Your task to perform on an android device: Open the stopwatch Image 0: 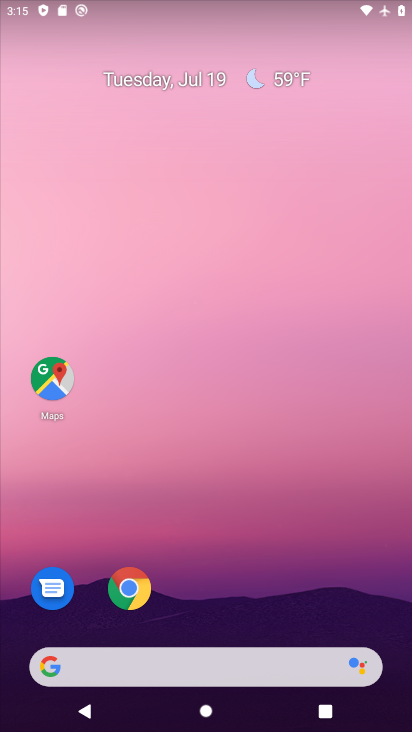
Step 0: press home button
Your task to perform on an android device: Open the stopwatch Image 1: 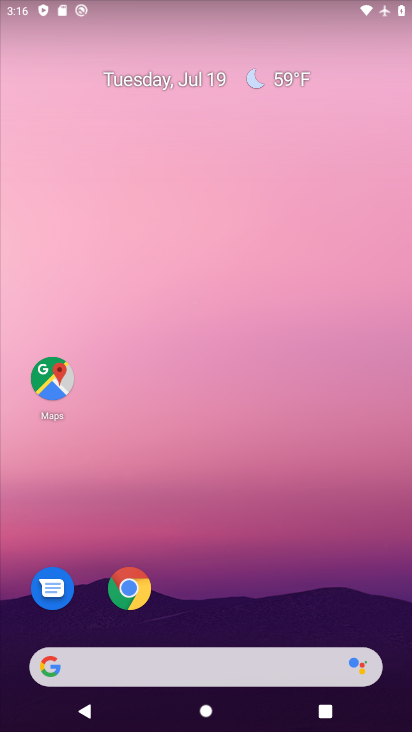
Step 1: drag from (223, 614) to (258, 32)
Your task to perform on an android device: Open the stopwatch Image 2: 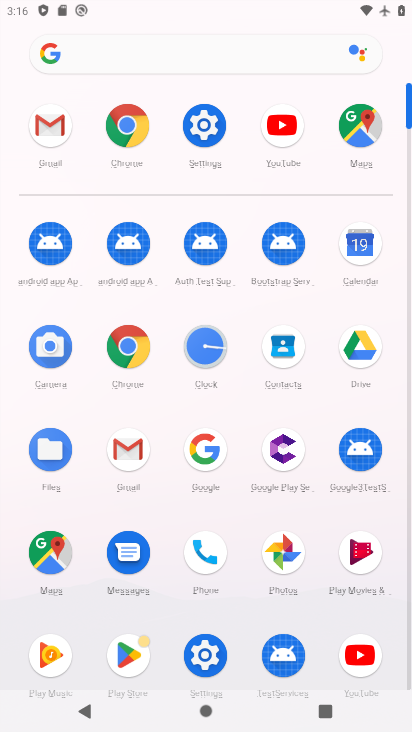
Step 2: click (199, 351)
Your task to perform on an android device: Open the stopwatch Image 3: 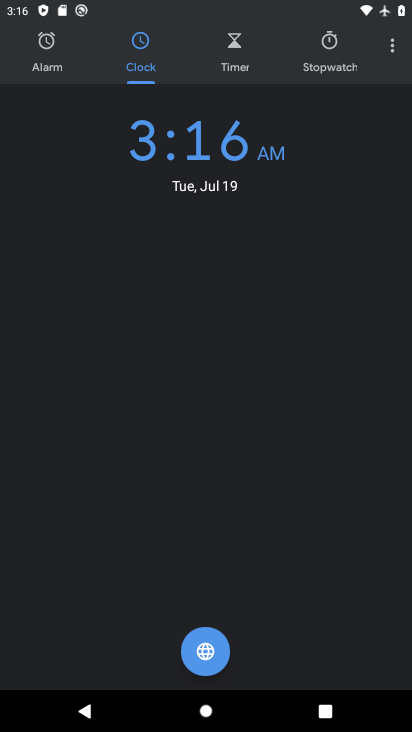
Step 3: click (335, 38)
Your task to perform on an android device: Open the stopwatch Image 4: 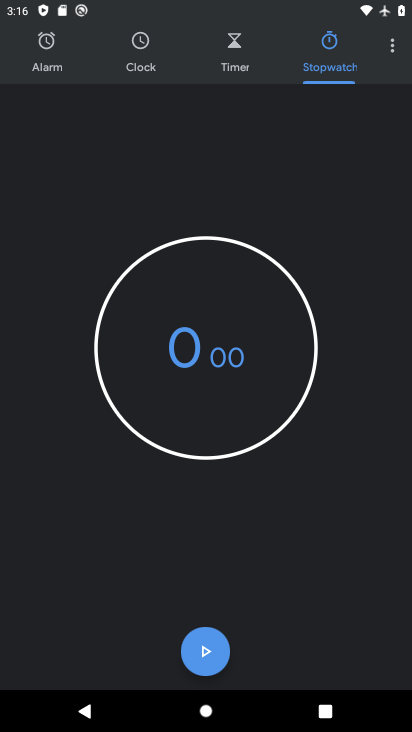
Step 4: task complete